Your task to perform on an android device: open sync settings in chrome Image 0: 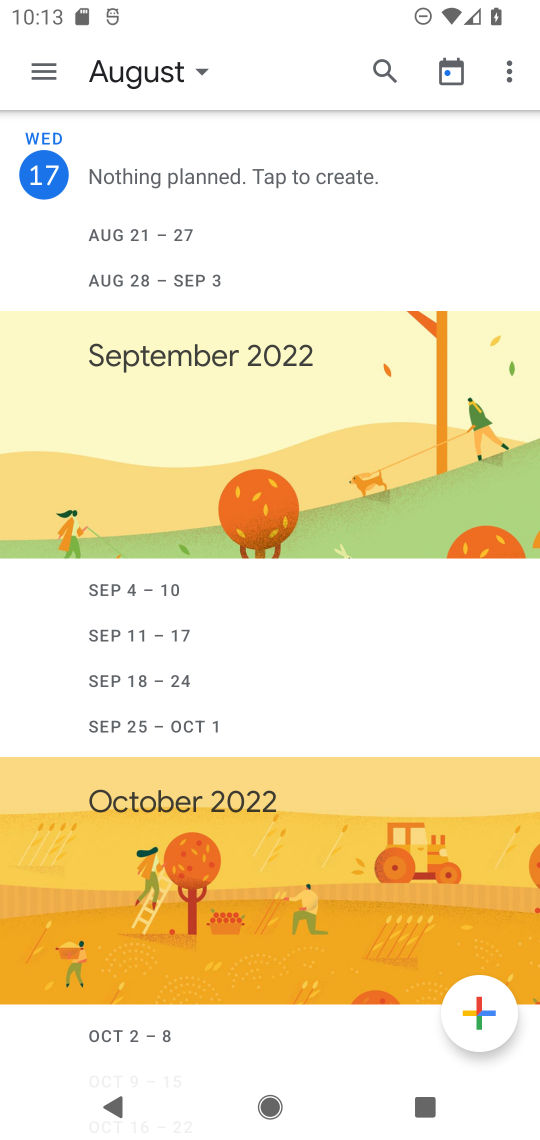
Step 0: press home button
Your task to perform on an android device: open sync settings in chrome Image 1: 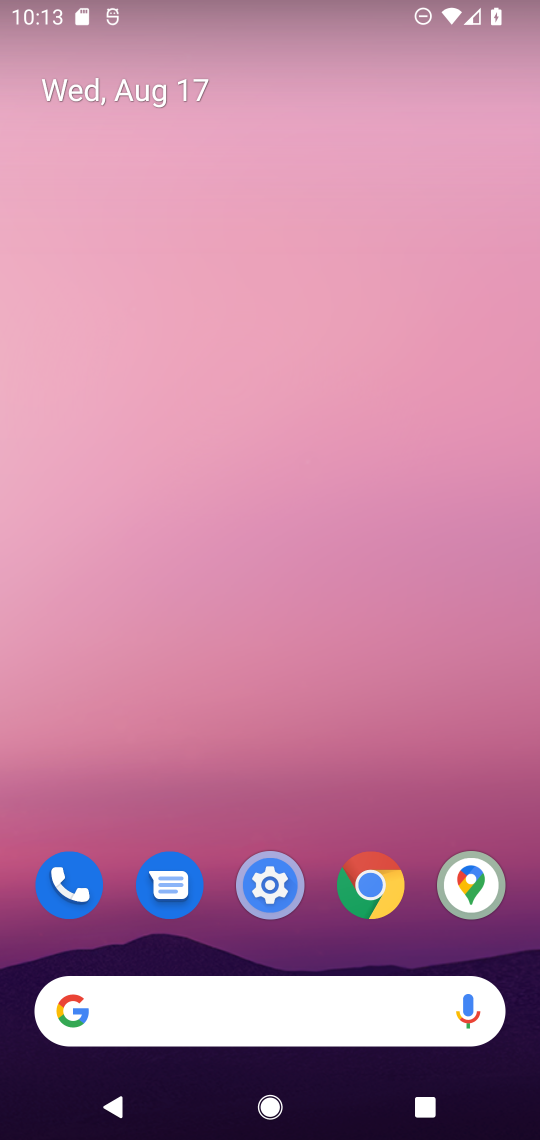
Step 1: click (371, 887)
Your task to perform on an android device: open sync settings in chrome Image 2: 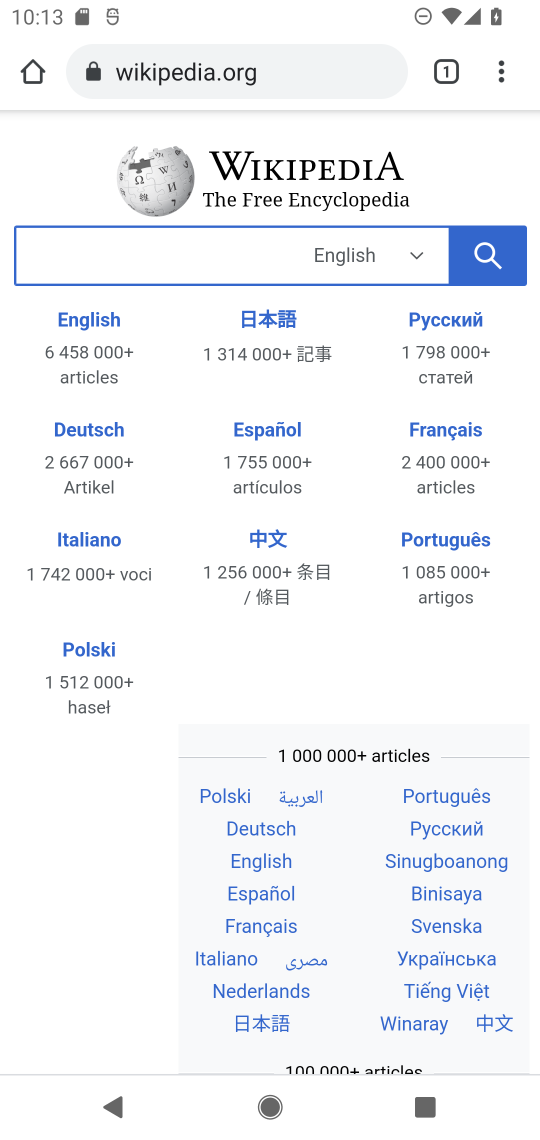
Step 2: click (494, 79)
Your task to perform on an android device: open sync settings in chrome Image 3: 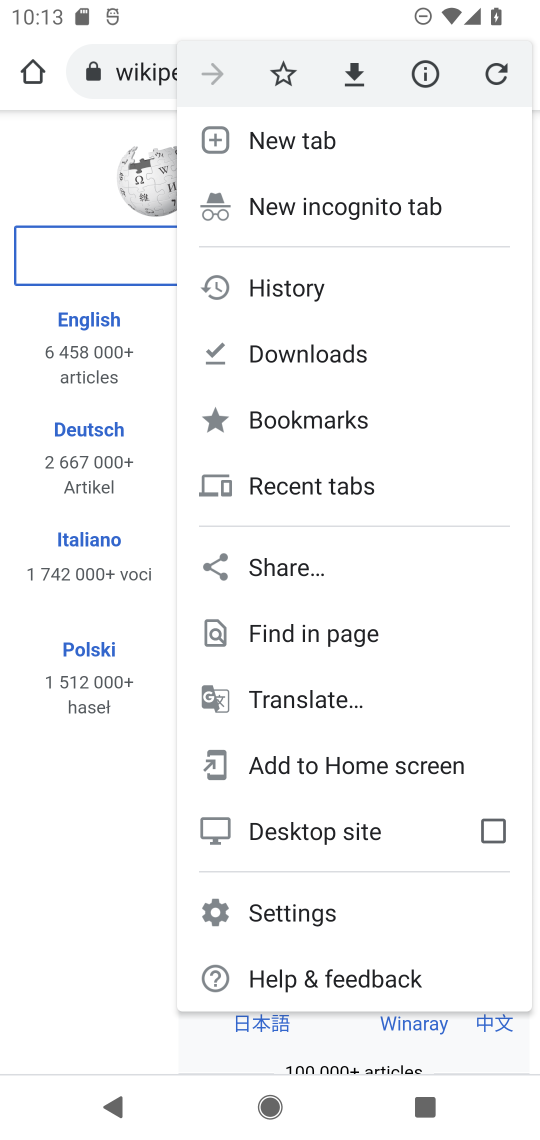
Step 3: click (284, 913)
Your task to perform on an android device: open sync settings in chrome Image 4: 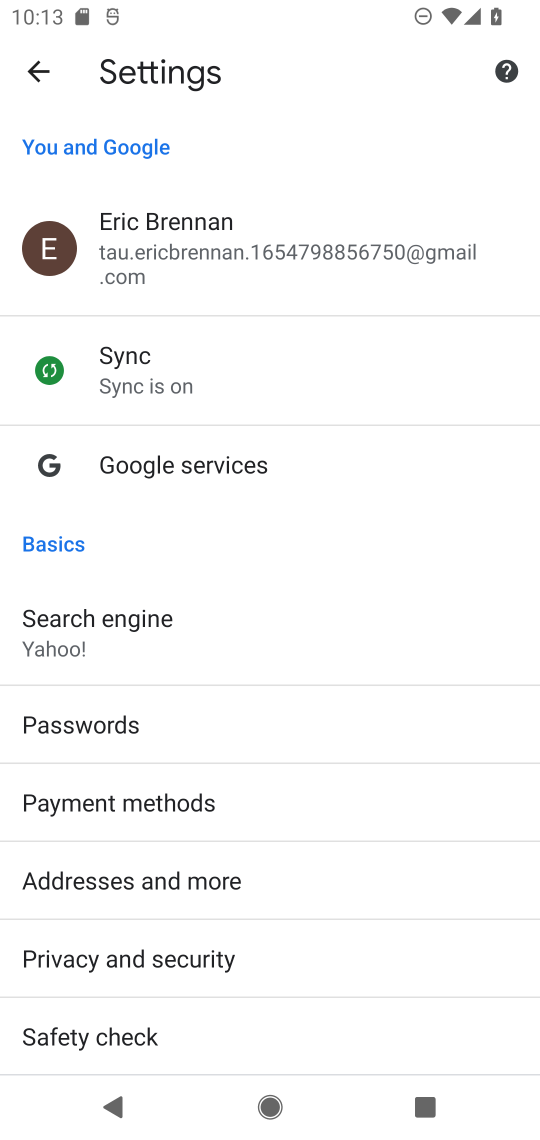
Step 4: click (124, 365)
Your task to perform on an android device: open sync settings in chrome Image 5: 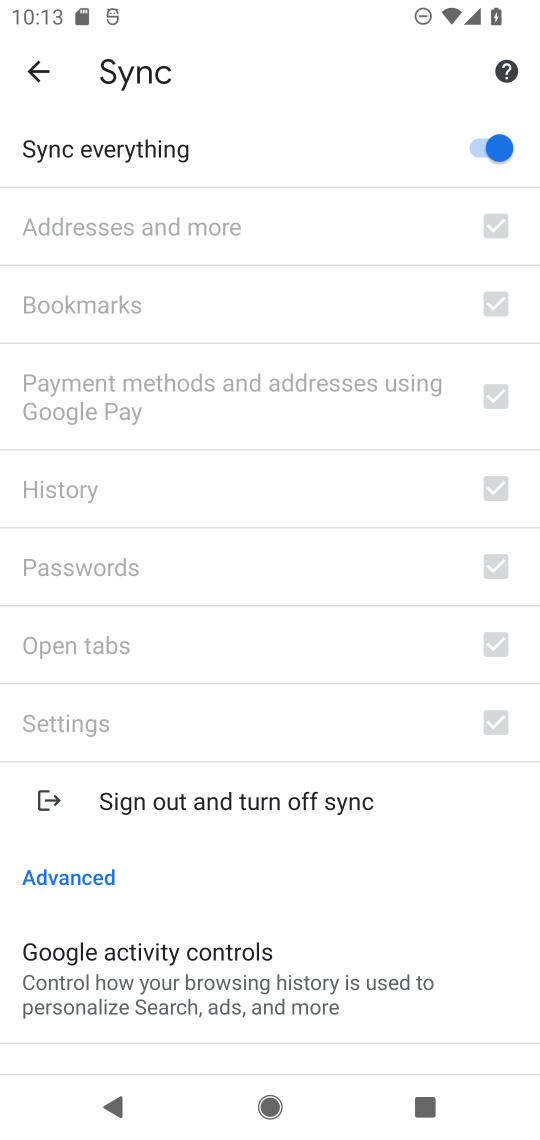
Step 5: task complete